Your task to perform on an android device: toggle wifi Image 0: 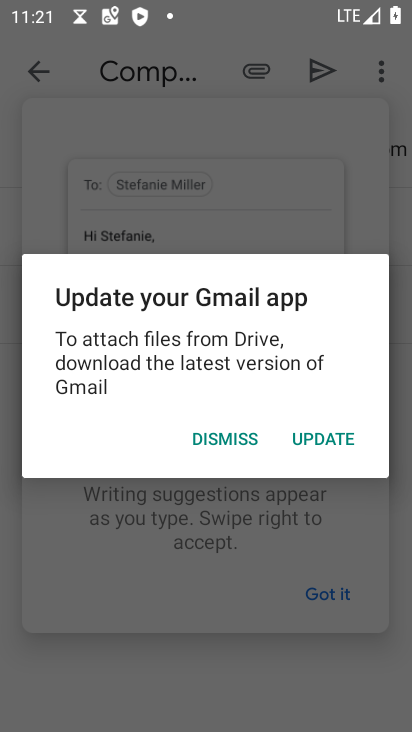
Step 0: press home button
Your task to perform on an android device: toggle wifi Image 1: 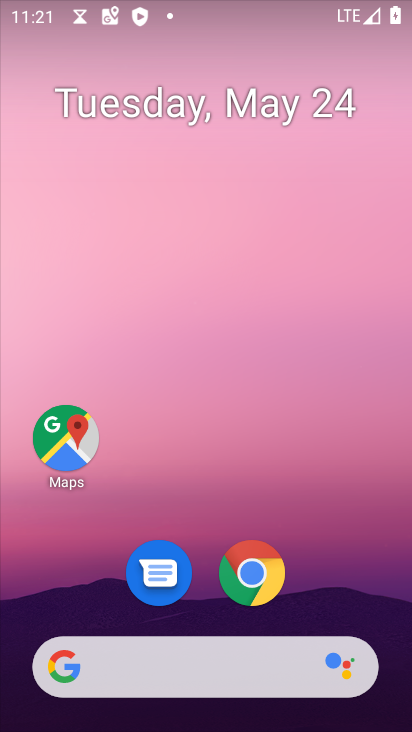
Step 1: drag from (86, 616) to (223, 110)
Your task to perform on an android device: toggle wifi Image 2: 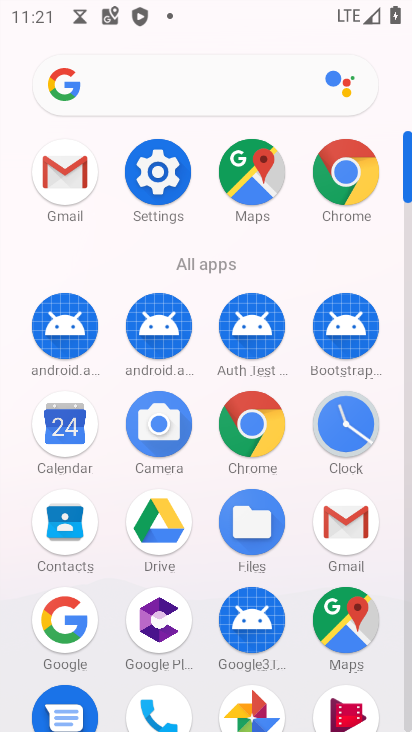
Step 2: drag from (164, 602) to (224, 348)
Your task to perform on an android device: toggle wifi Image 3: 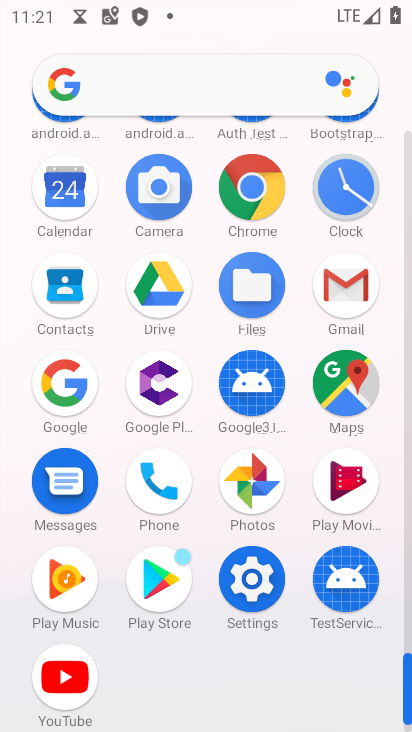
Step 3: click (254, 587)
Your task to perform on an android device: toggle wifi Image 4: 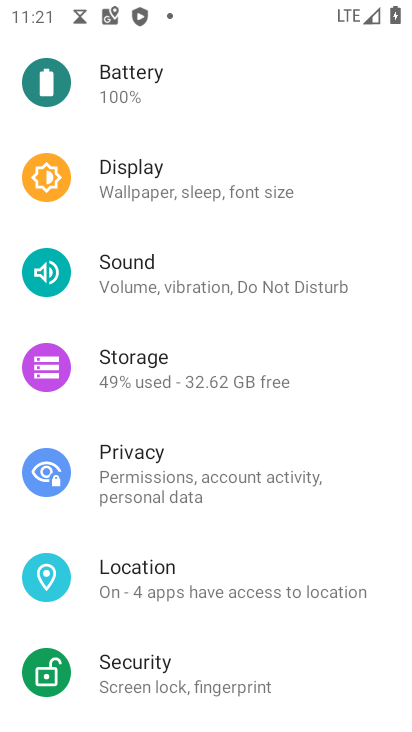
Step 4: drag from (237, 111) to (226, 547)
Your task to perform on an android device: toggle wifi Image 5: 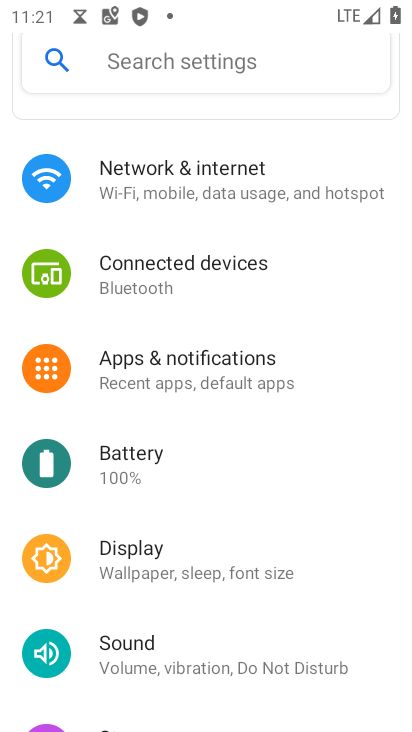
Step 5: click (228, 191)
Your task to perform on an android device: toggle wifi Image 6: 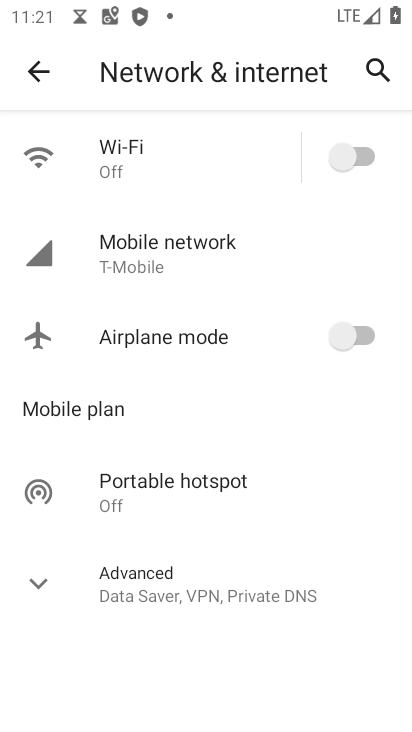
Step 6: click (375, 151)
Your task to perform on an android device: toggle wifi Image 7: 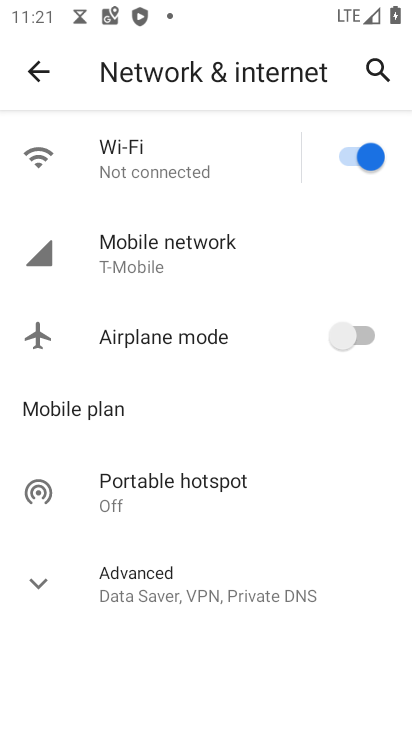
Step 7: task complete